Your task to perform on an android device: toggle notifications settings in the gmail app Image 0: 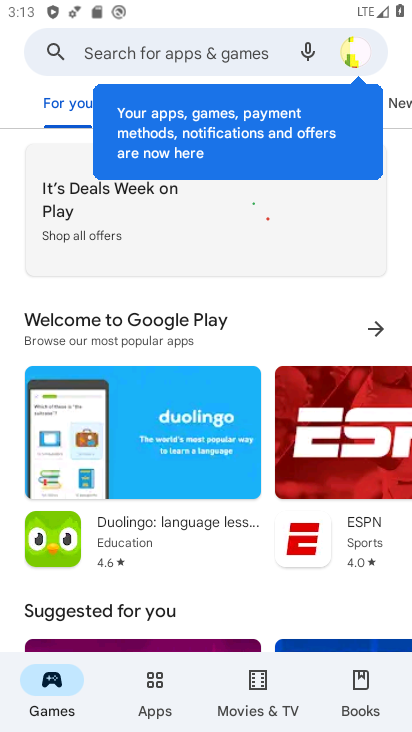
Step 0: press home button
Your task to perform on an android device: toggle notifications settings in the gmail app Image 1: 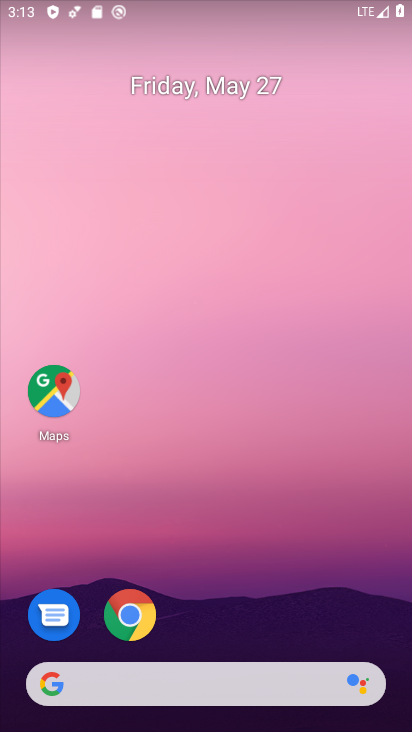
Step 1: drag from (240, 655) to (30, 84)
Your task to perform on an android device: toggle notifications settings in the gmail app Image 2: 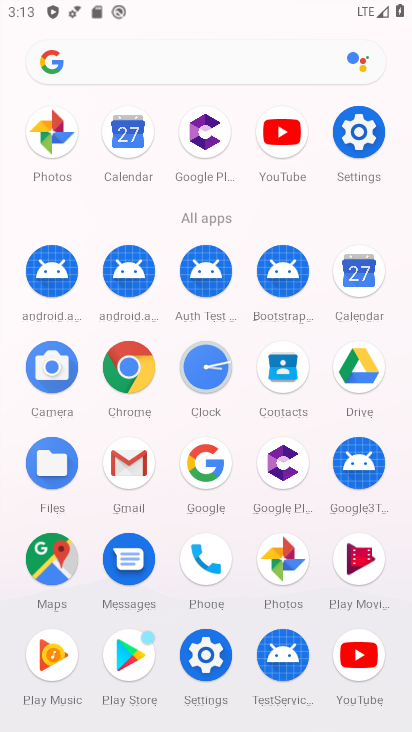
Step 2: click (123, 441)
Your task to perform on an android device: toggle notifications settings in the gmail app Image 3: 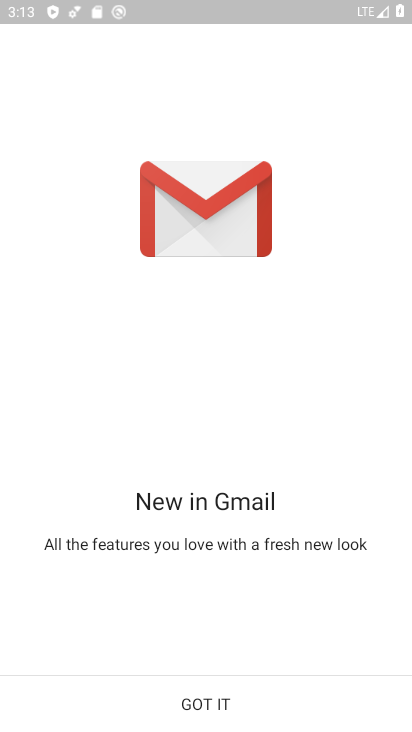
Step 3: click (190, 710)
Your task to perform on an android device: toggle notifications settings in the gmail app Image 4: 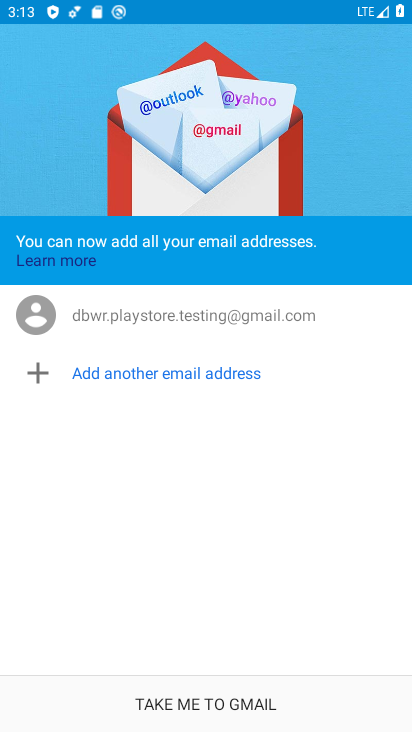
Step 4: click (194, 709)
Your task to perform on an android device: toggle notifications settings in the gmail app Image 5: 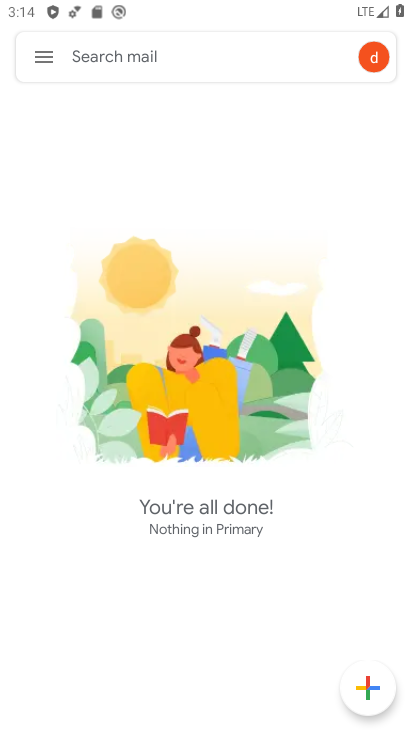
Step 5: click (43, 59)
Your task to perform on an android device: toggle notifications settings in the gmail app Image 6: 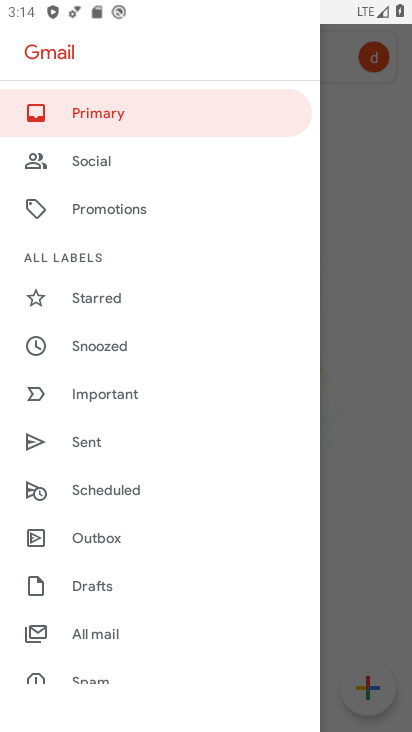
Step 6: drag from (133, 611) to (79, 239)
Your task to perform on an android device: toggle notifications settings in the gmail app Image 7: 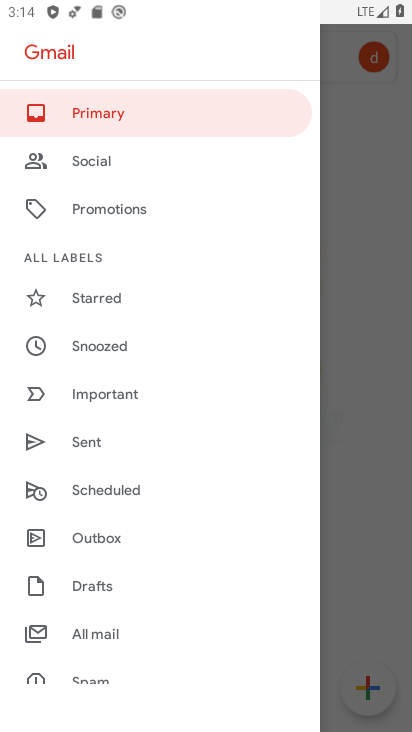
Step 7: drag from (190, 570) to (233, 54)
Your task to perform on an android device: toggle notifications settings in the gmail app Image 8: 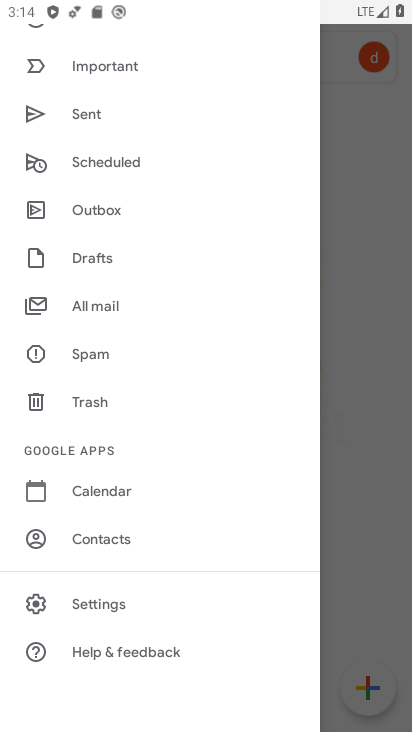
Step 8: click (88, 598)
Your task to perform on an android device: toggle notifications settings in the gmail app Image 9: 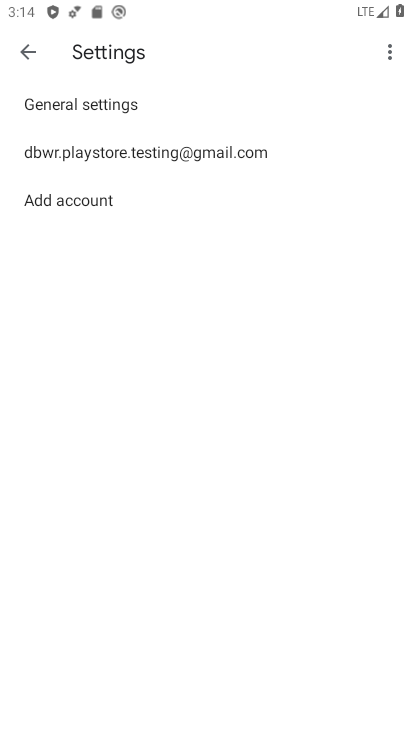
Step 9: click (97, 160)
Your task to perform on an android device: toggle notifications settings in the gmail app Image 10: 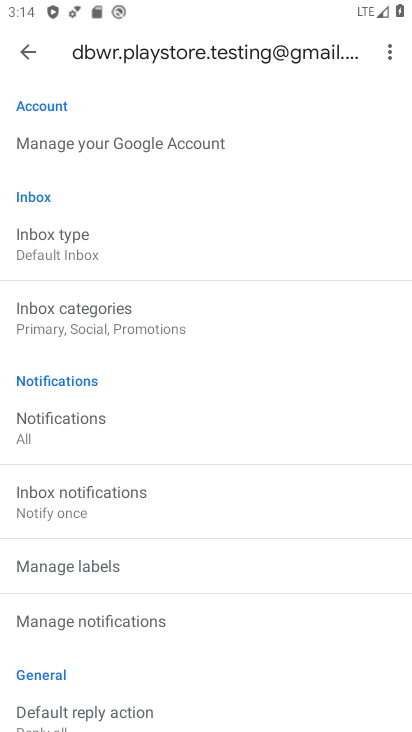
Step 10: click (120, 614)
Your task to perform on an android device: toggle notifications settings in the gmail app Image 11: 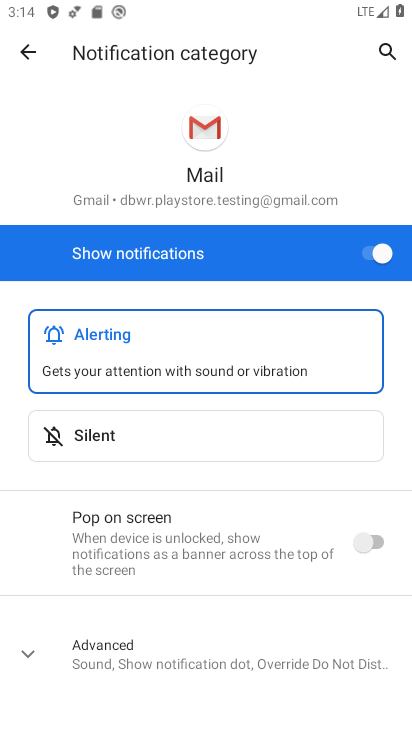
Step 11: click (365, 250)
Your task to perform on an android device: toggle notifications settings in the gmail app Image 12: 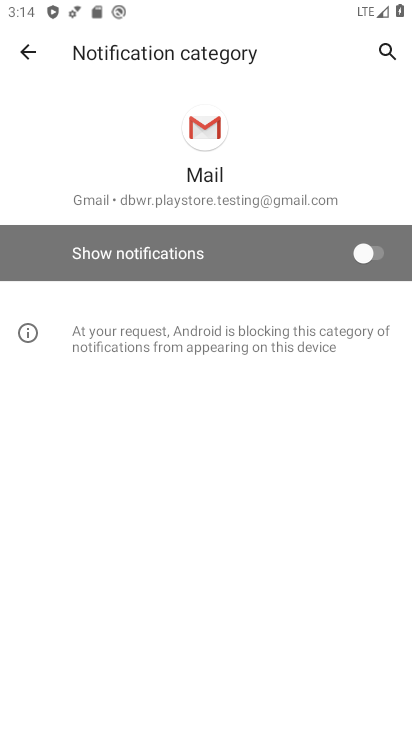
Step 12: task complete